Your task to perform on an android device: toggle translation in the chrome app Image 0: 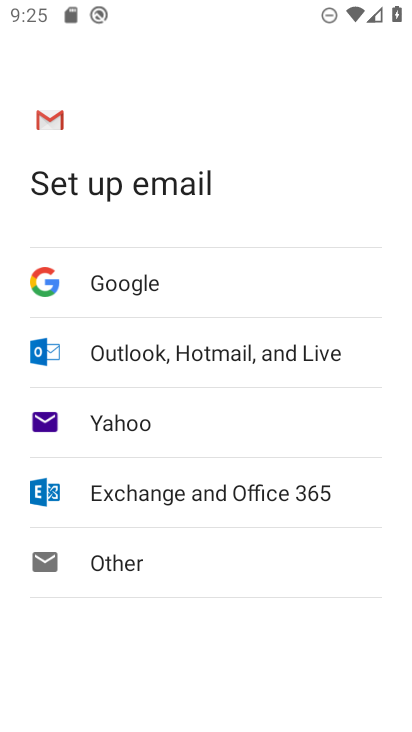
Step 0: press home button
Your task to perform on an android device: toggle translation in the chrome app Image 1: 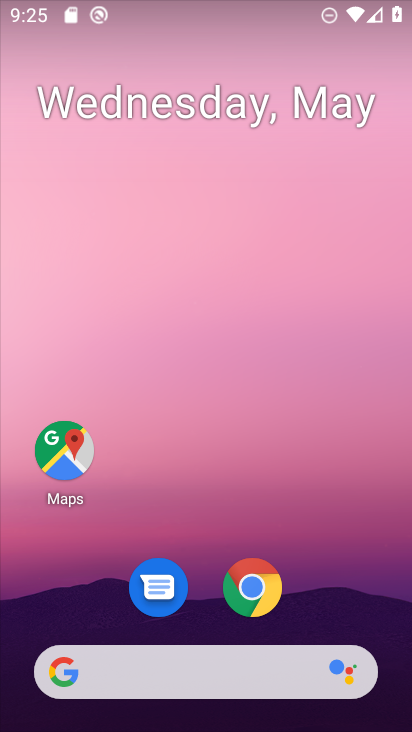
Step 1: click (256, 584)
Your task to perform on an android device: toggle translation in the chrome app Image 2: 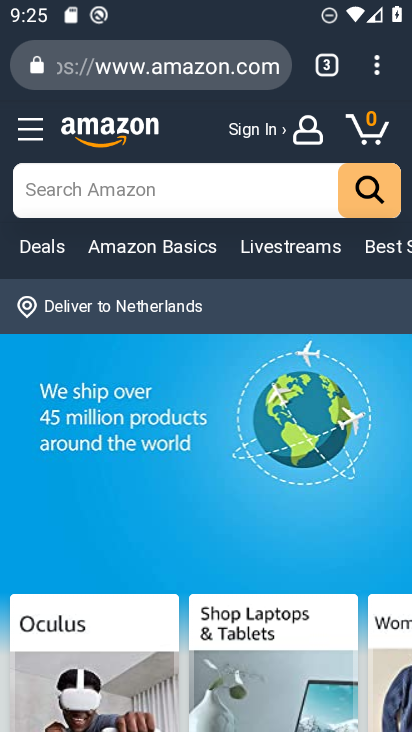
Step 2: click (379, 69)
Your task to perform on an android device: toggle translation in the chrome app Image 3: 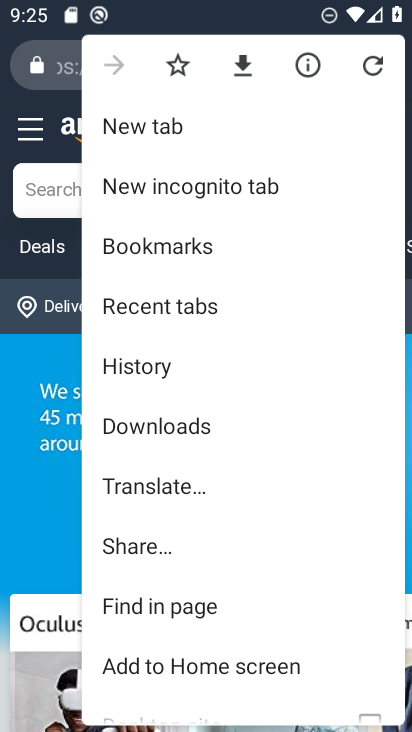
Step 3: drag from (153, 640) to (153, 277)
Your task to perform on an android device: toggle translation in the chrome app Image 4: 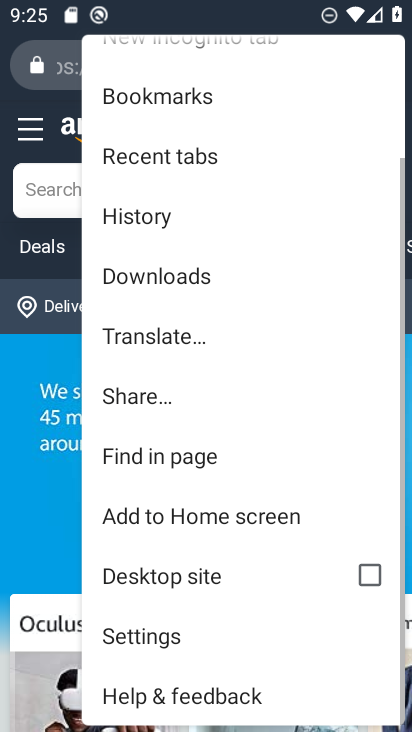
Step 4: click (144, 634)
Your task to perform on an android device: toggle translation in the chrome app Image 5: 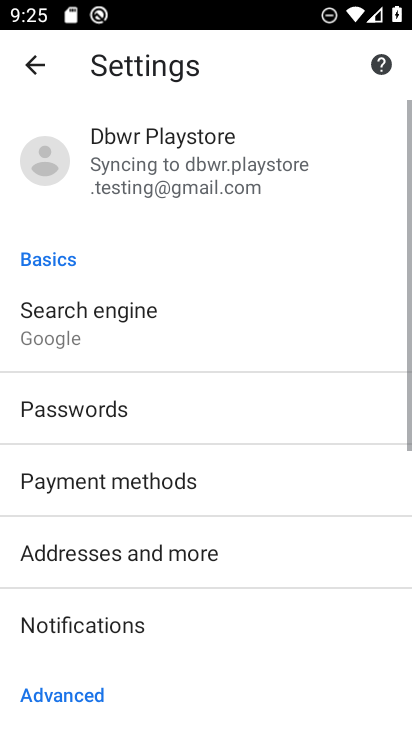
Step 5: drag from (186, 657) to (189, 241)
Your task to perform on an android device: toggle translation in the chrome app Image 6: 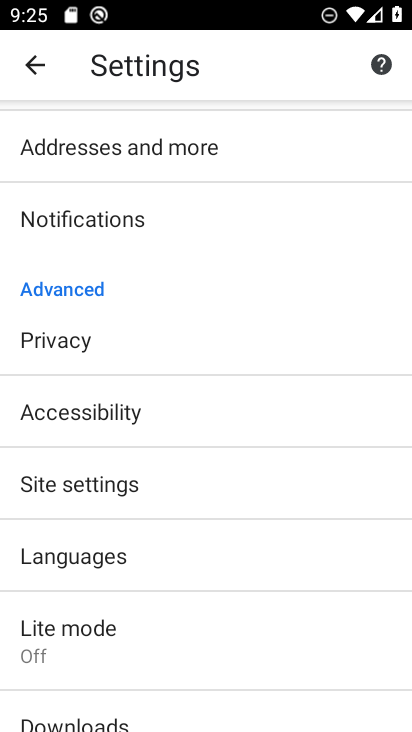
Step 6: click (122, 551)
Your task to perform on an android device: toggle translation in the chrome app Image 7: 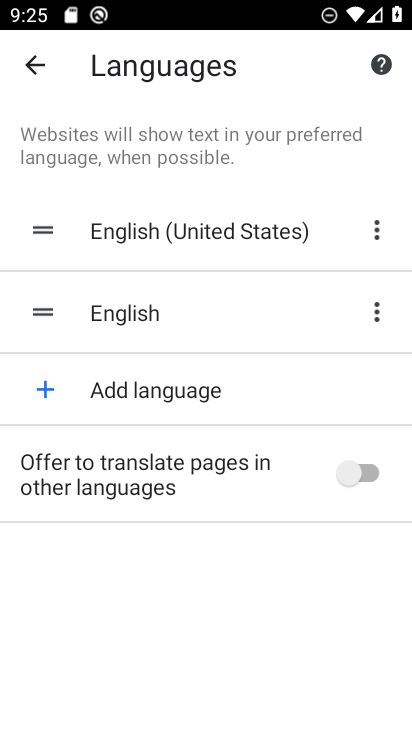
Step 7: click (364, 467)
Your task to perform on an android device: toggle translation in the chrome app Image 8: 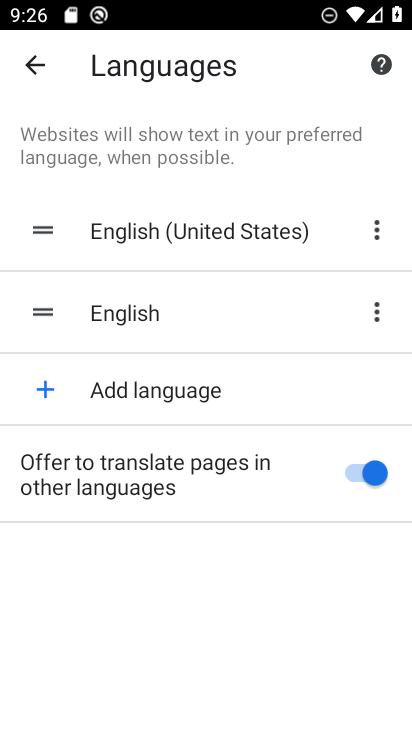
Step 8: task complete